Your task to perform on an android device: Open sound settings Image 0: 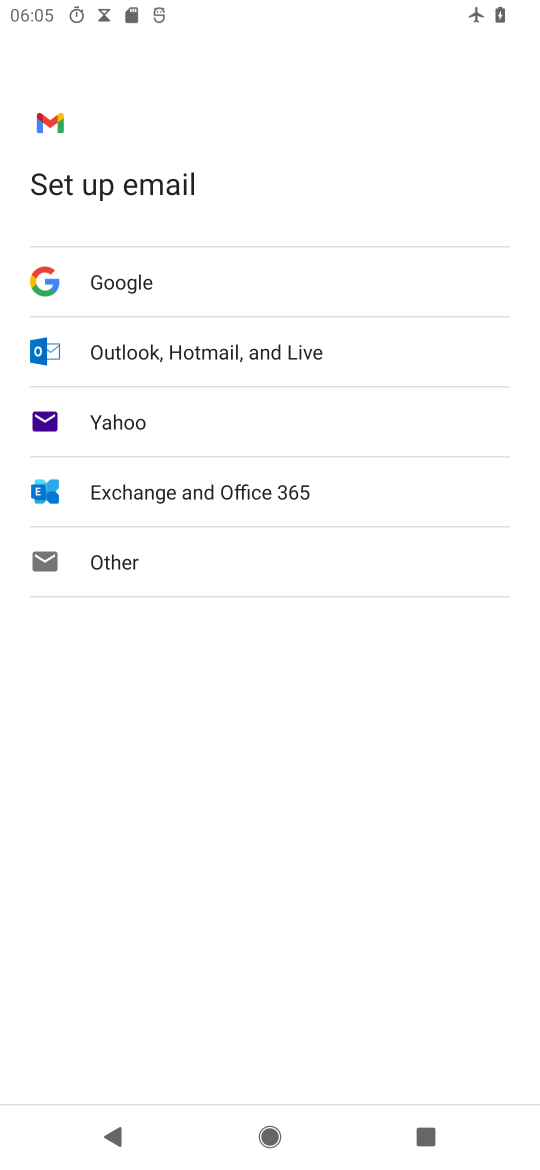
Step 0: press home button
Your task to perform on an android device: Open sound settings Image 1: 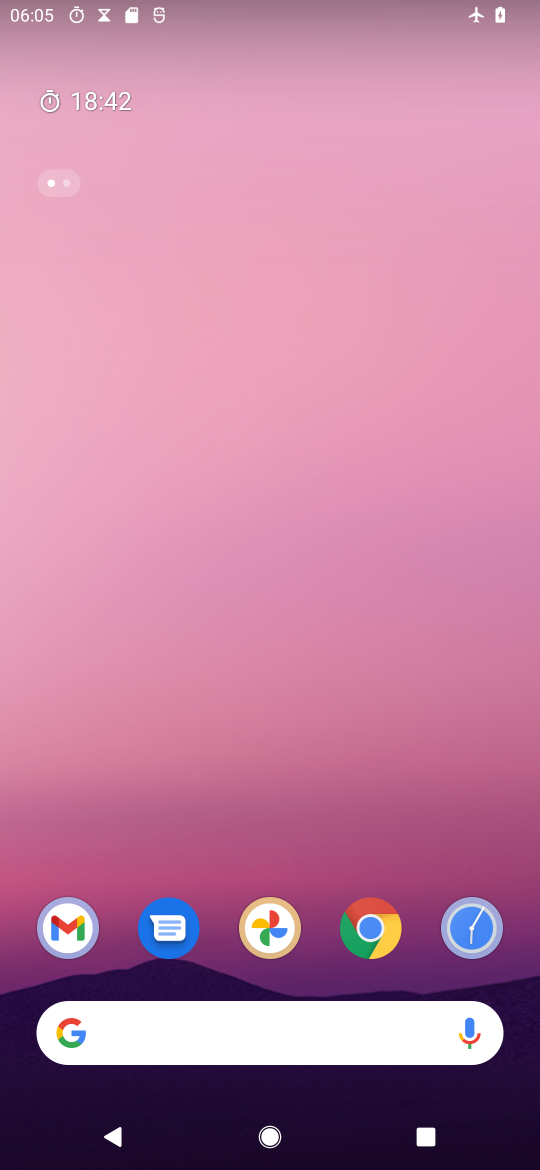
Step 1: drag from (218, 974) to (369, 42)
Your task to perform on an android device: Open sound settings Image 2: 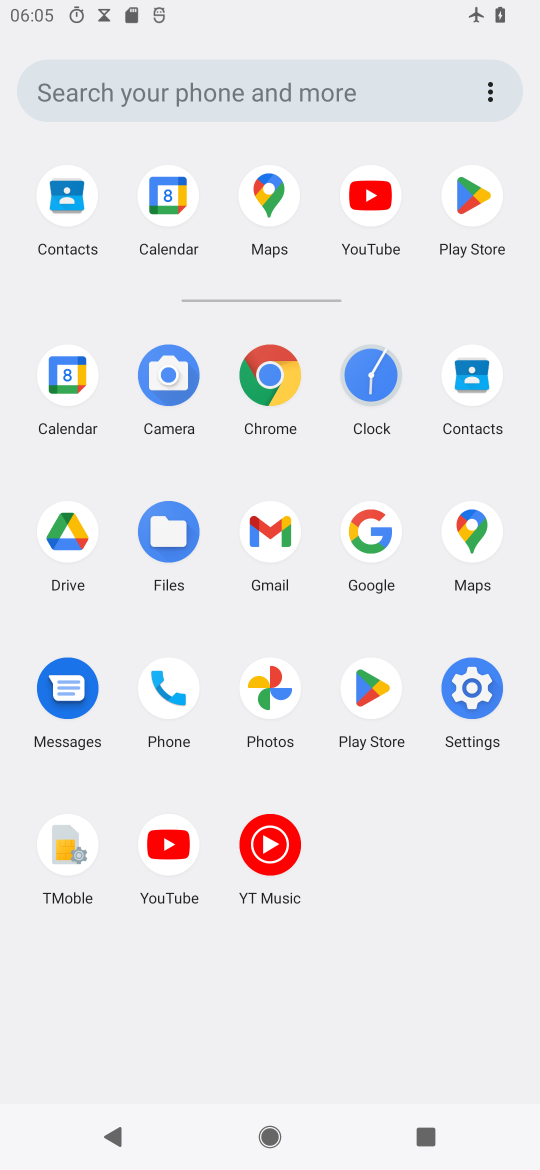
Step 2: click (472, 725)
Your task to perform on an android device: Open sound settings Image 3: 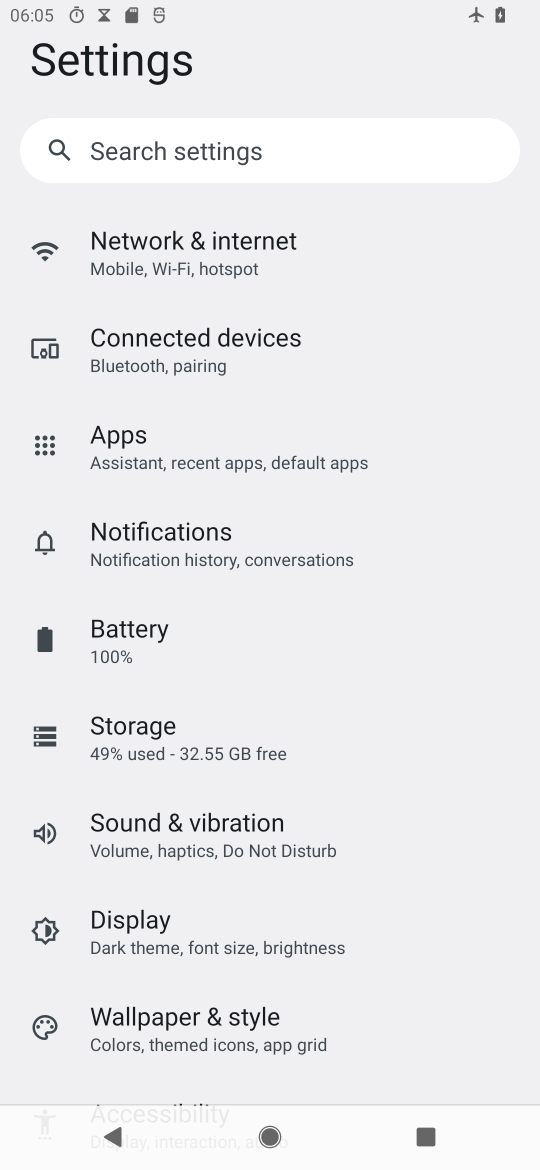
Step 3: drag from (260, 930) to (272, 667)
Your task to perform on an android device: Open sound settings Image 4: 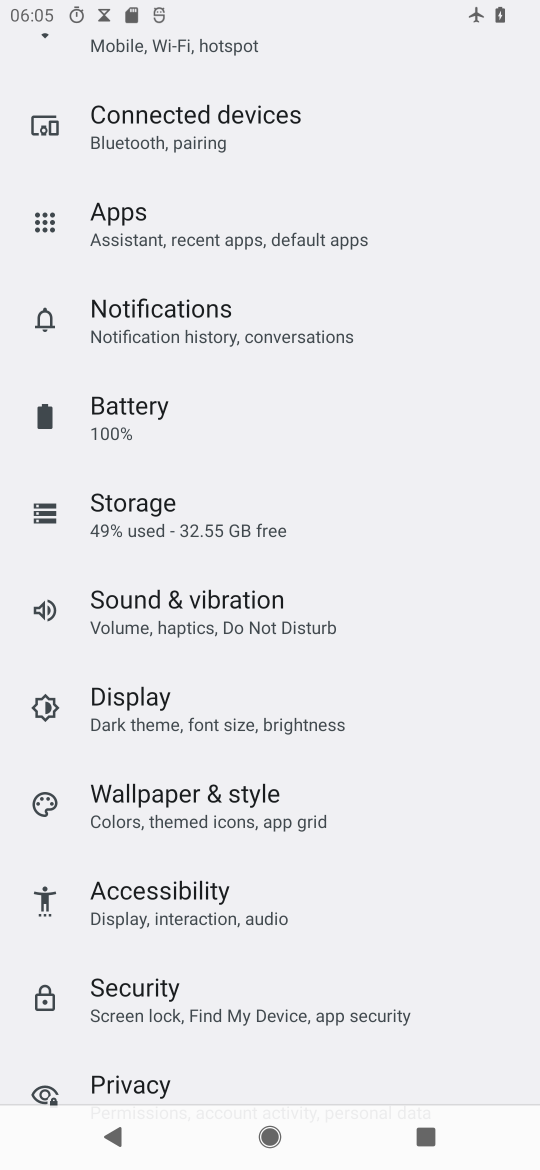
Step 4: click (190, 609)
Your task to perform on an android device: Open sound settings Image 5: 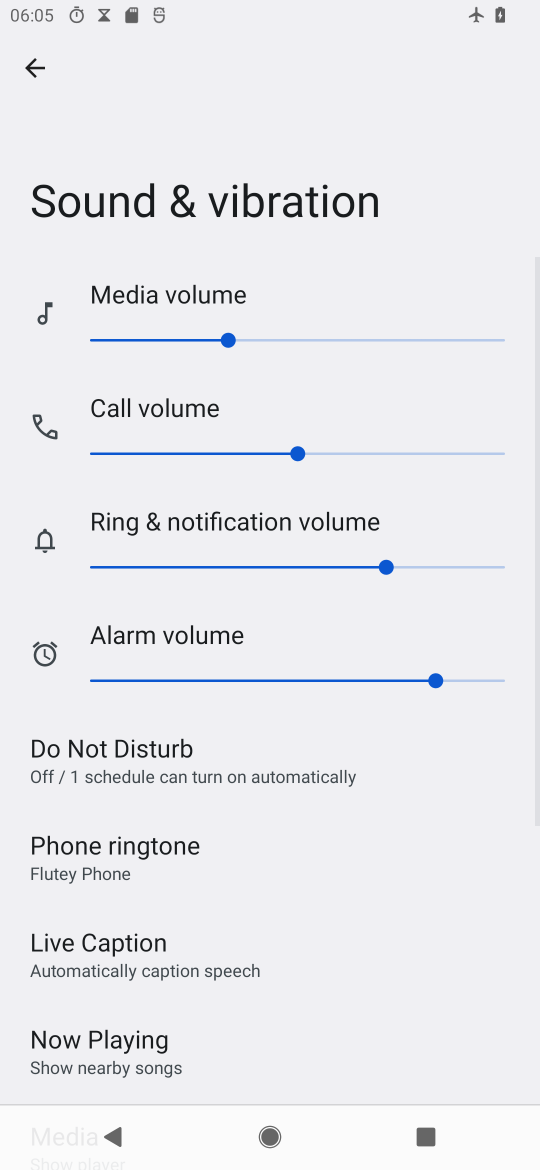
Step 5: task complete